Your task to perform on an android device: Go to display settings Image 0: 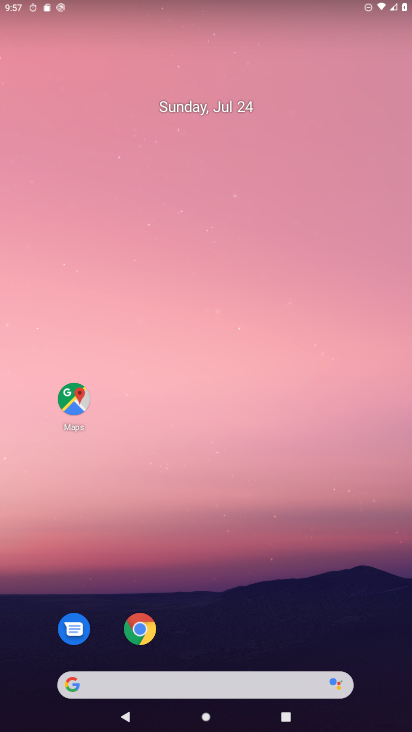
Step 0: drag from (236, 622) to (321, 159)
Your task to perform on an android device: Go to display settings Image 1: 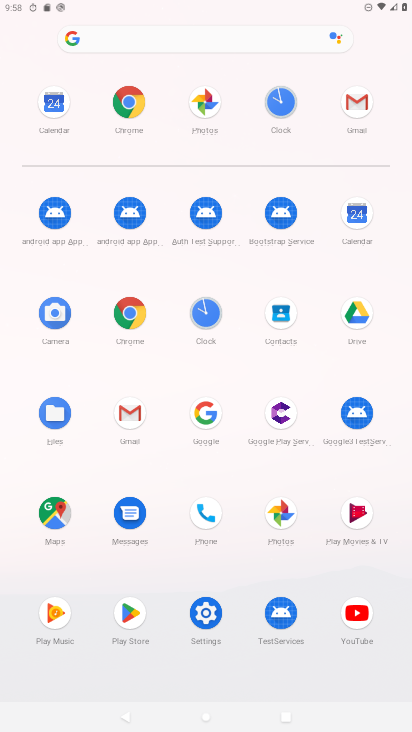
Step 1: click (214, 620)
Your task to perform on an android device: Go to display settings Image 2: 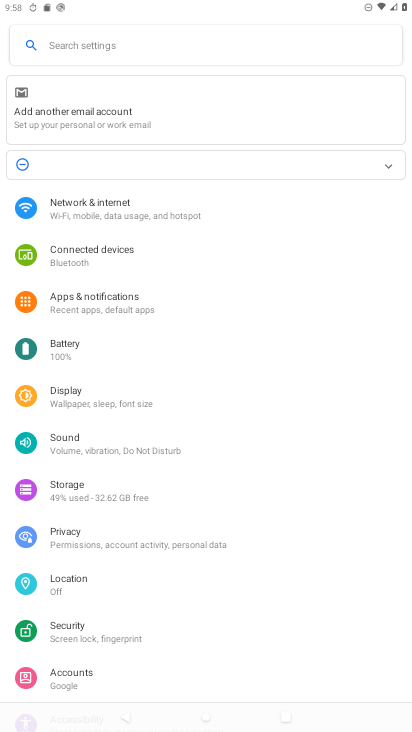
Step 2: click (95, 408)
Your task to perform on an android device: Go to display settings Image 3: 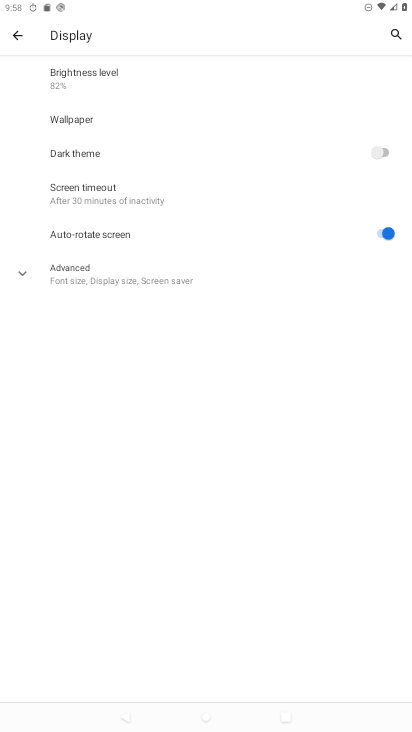
Step 3: task complete